Your task to perform on an android device: Open sound settings Image 0: 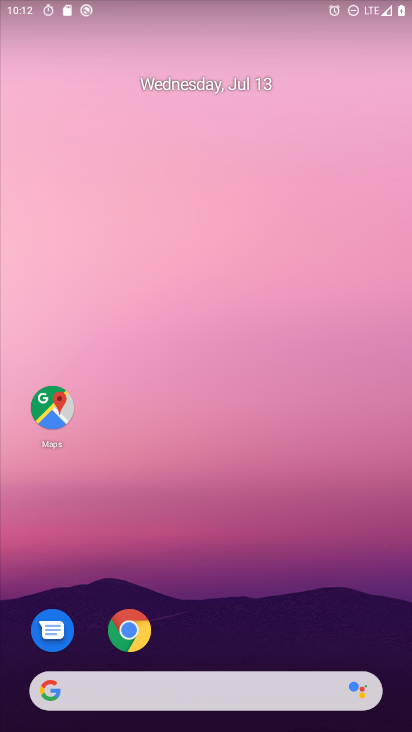
Step 0: drag from (400, 660) to (252, 31)
Your task to perform on an android device: Open sound settings Image 1: 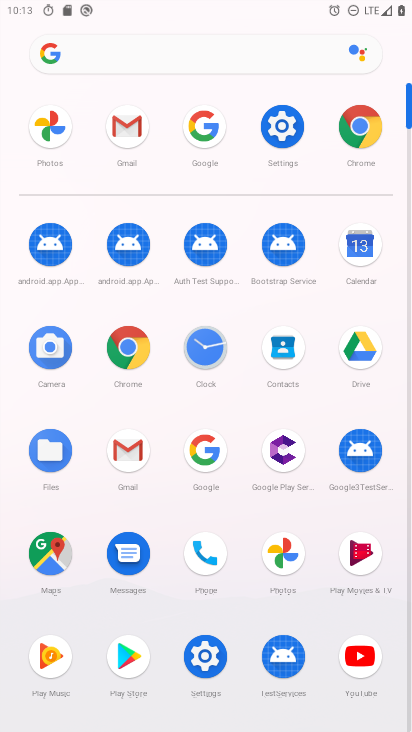
Step 1: click (200, 661)
Your task to perform on an android device: Open sound settings Image 2: 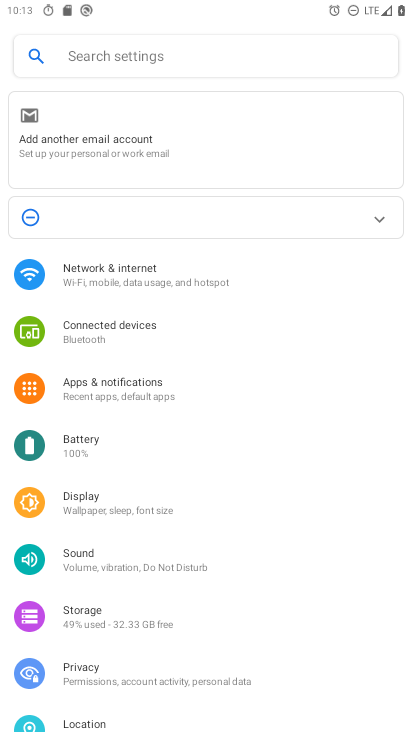
Step 2: click (107, 558)
Your task to perform on an android device: Open sound settings Image 3: 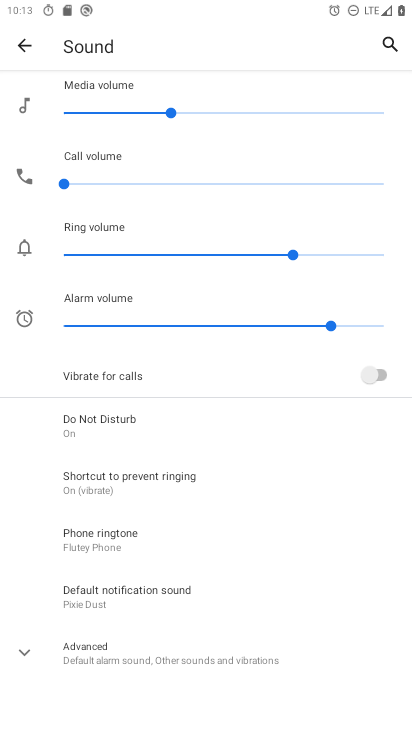
Step 3: task complete